Your task to perform on an android device: Go to Wikipedia Image 0: 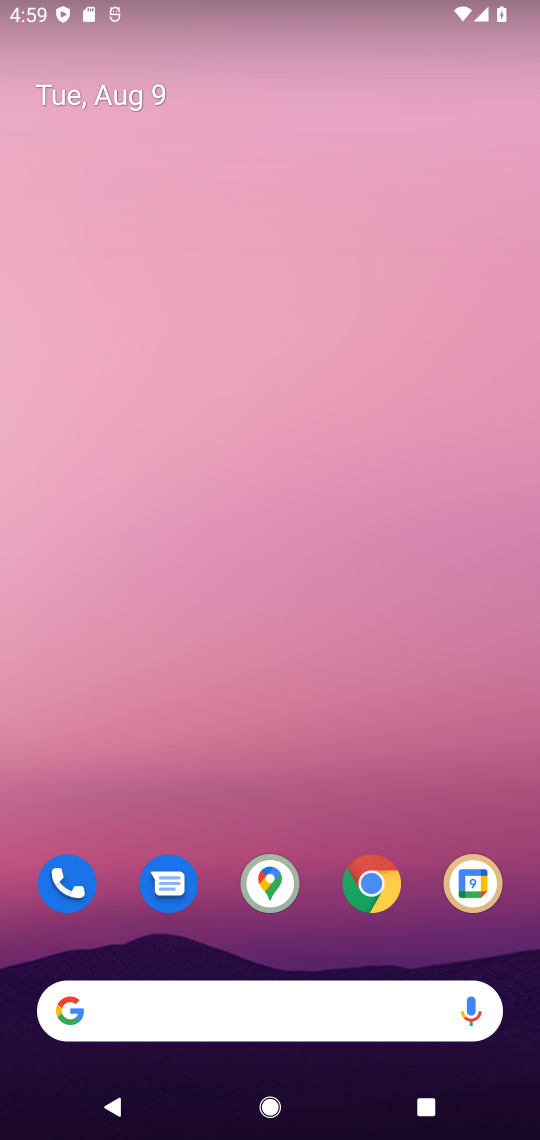
Step 0: click (367, 883)
Your task to perform on an android device: Go to Wikipedia Image 1: 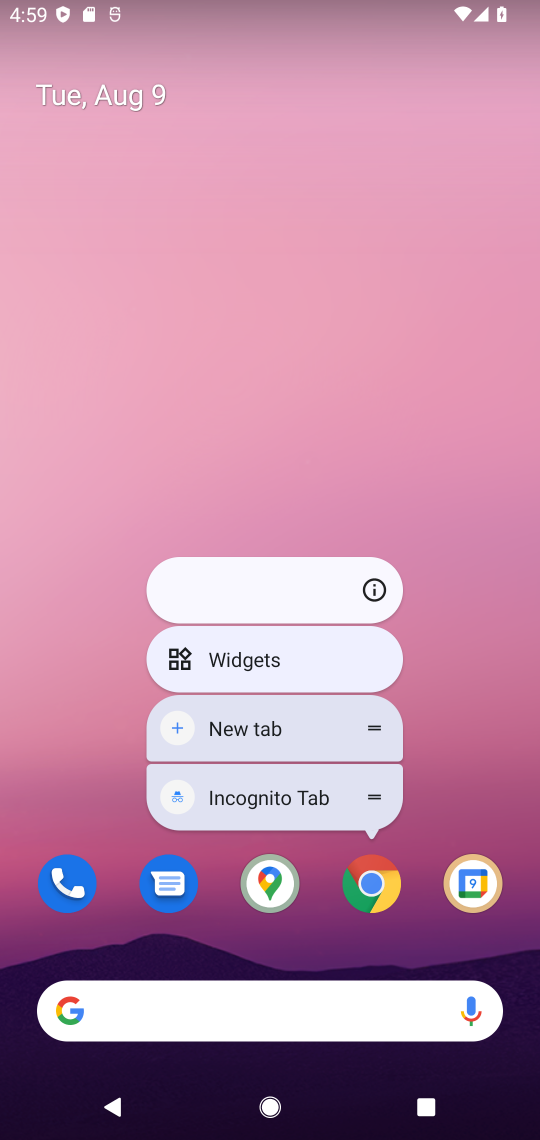
Step 1: click (388, 879)
Your task to perform on an android device: Go to Wikipedia Image 2: 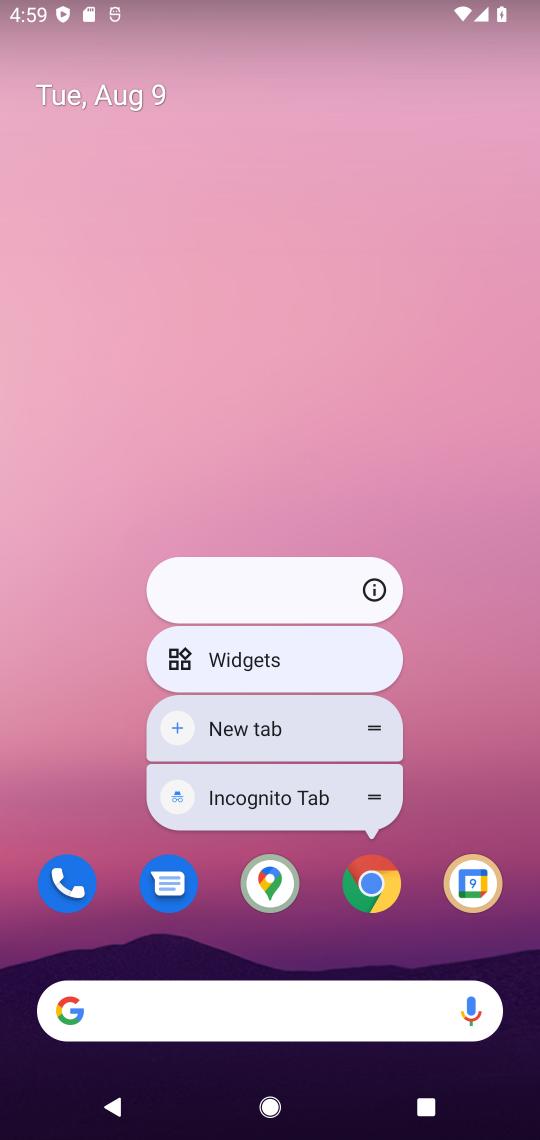
Step 2: click (388, 879)
Your task to perform on an android device: Go to Wikipedia Image 3: 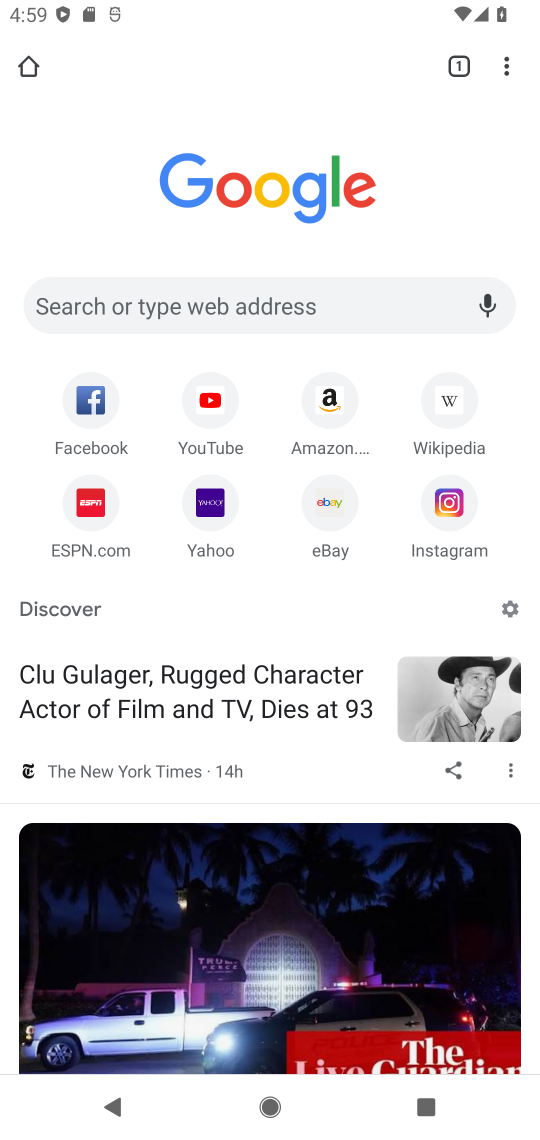
Step 3: click (431, 408)
Your task to perform on an android device: Go to Wikipedia Image 4: 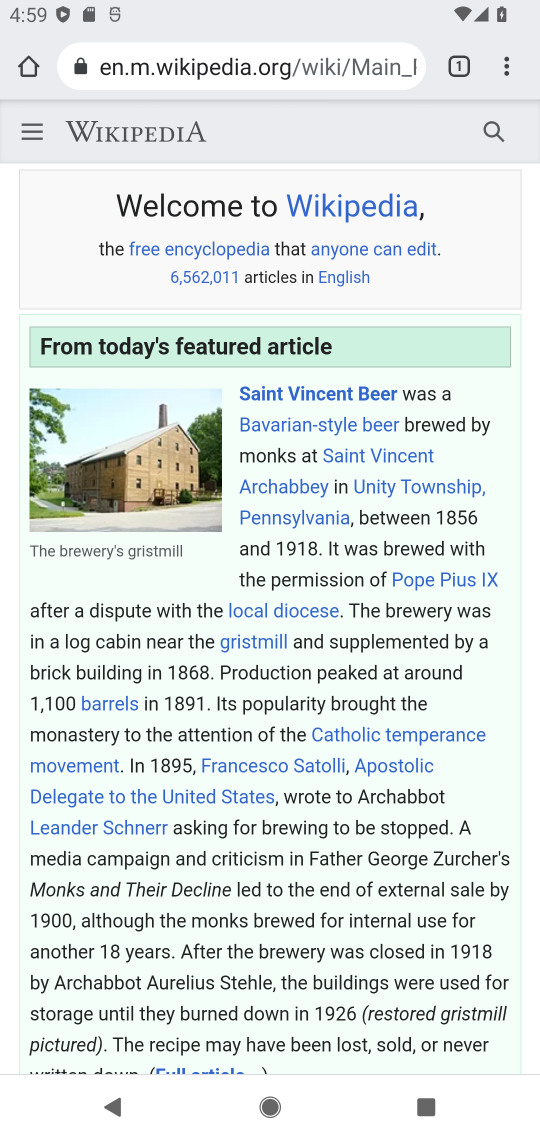
Step 4: task complete